Your task to perform on an android device: turn on notifications settings in the gmail app Image 0: 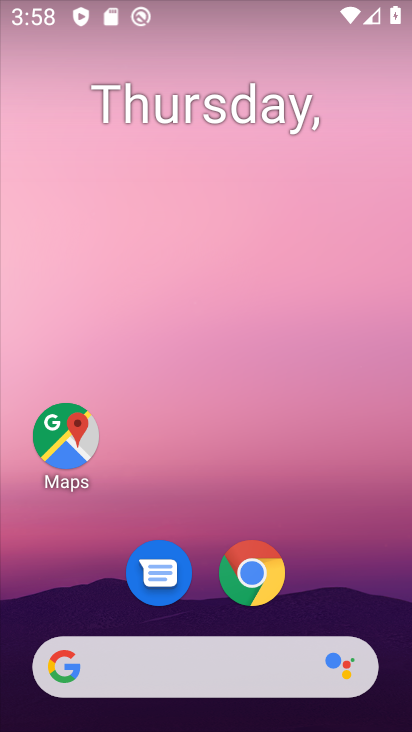
Step 0: drag from (405, 638) to (288, 152)
Your task to perform on an android device: turn on notifications settings in the gmail app Image 1: 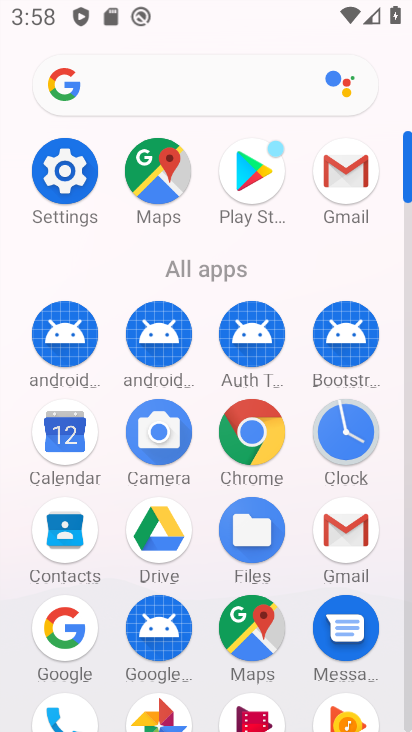
Step 1: click (406, 708)
Your task to perform on an android device: turn on notifications settings in the gmail app Image 2: 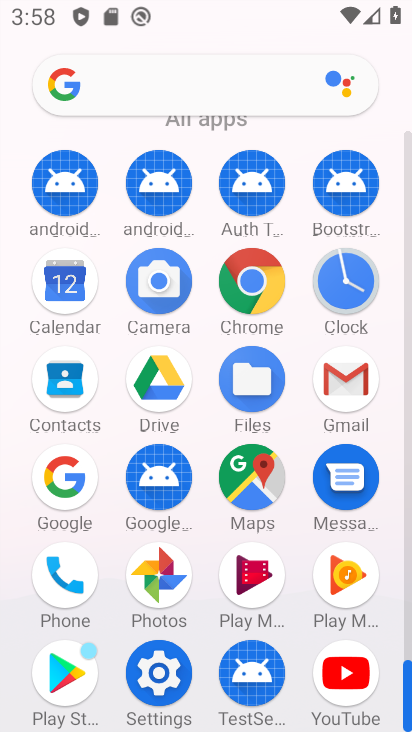
Step 2: click (344, 376)
Your task to perform on an android device: turn on notifications settings in the gmail app Image 3: 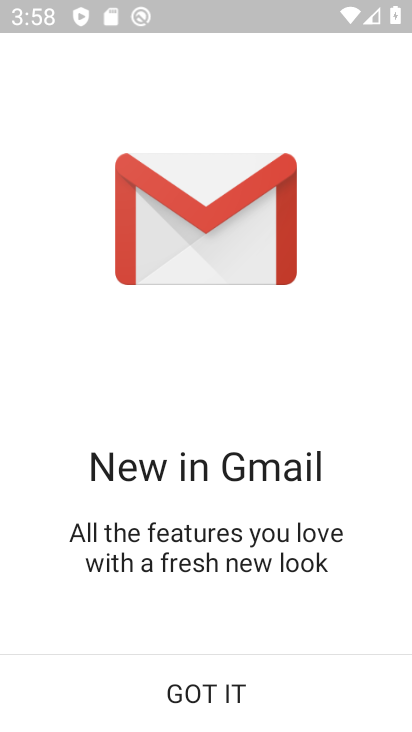
Step 3: click (199, 703)
Your task to perform on an android device: turn on notifications settings in the gmail app Image 4: 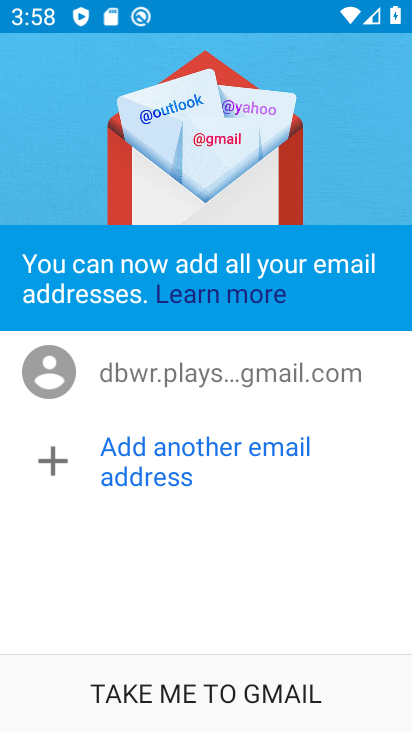
Step 4: click (199, 703)
Your task to perform on an android device: turn on notifications settings in the gmail app Image 5: 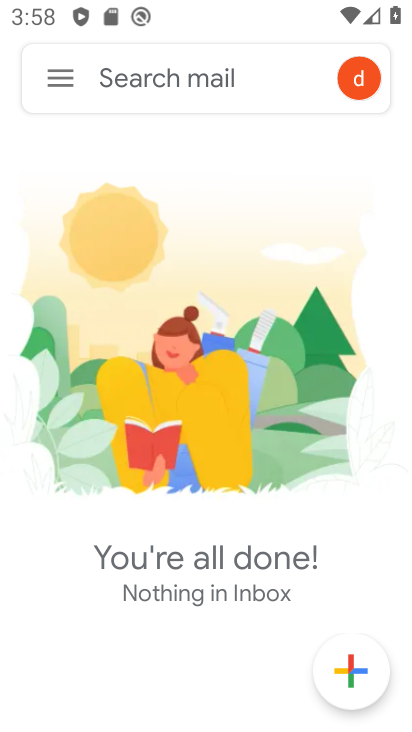
Step 5: click (62, 73)
Your task to perform on an android device: turn on notifications settings in the gmail app Image 6: 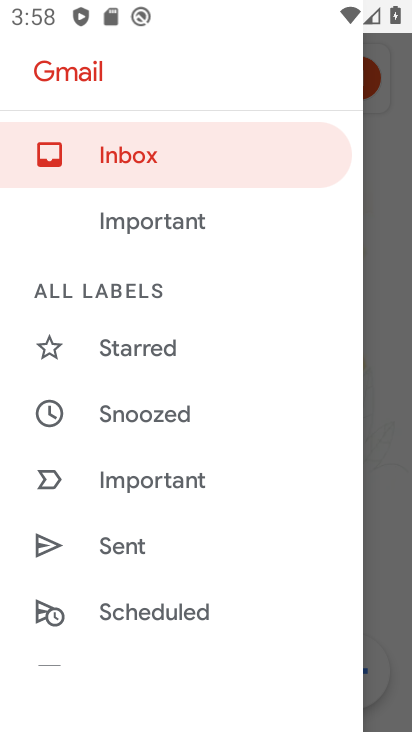
Step 6: drag from (249, 613) to (282, 40)
Your task to perform on an android device: turn on notifications settings in the gmail app Image 7: 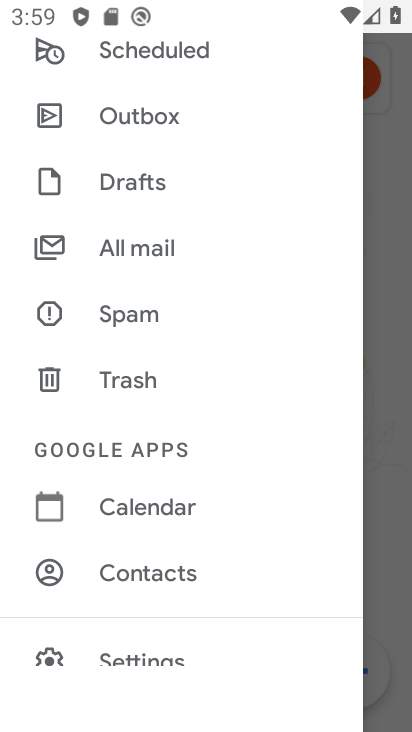
Step 7: drag from (238, 653) to (239, 217)
Your task to perform on an android device: turn on notifications settings in the gmail app Image 8: 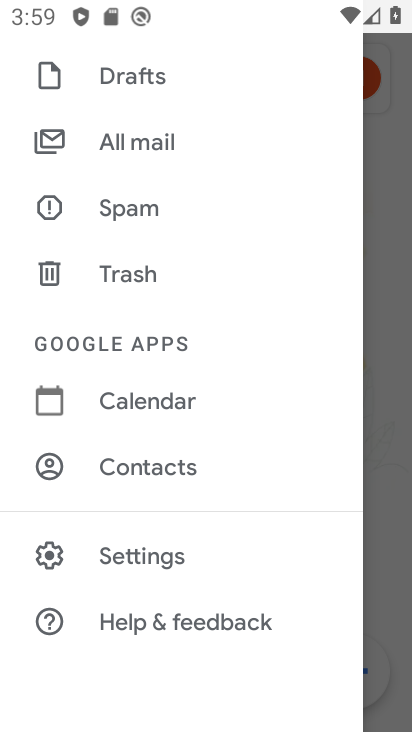
Step 8: click (128, 549)
Your task to perform on an android device: turn on notifications settings in the gmail app Image 9: 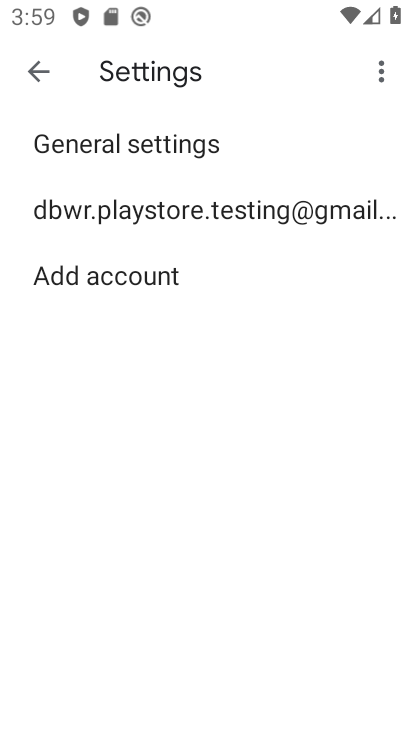
Step 9: click (175, 212)
Your task to perform on an android device: turn on notifications settings in the gmail app Image 10: 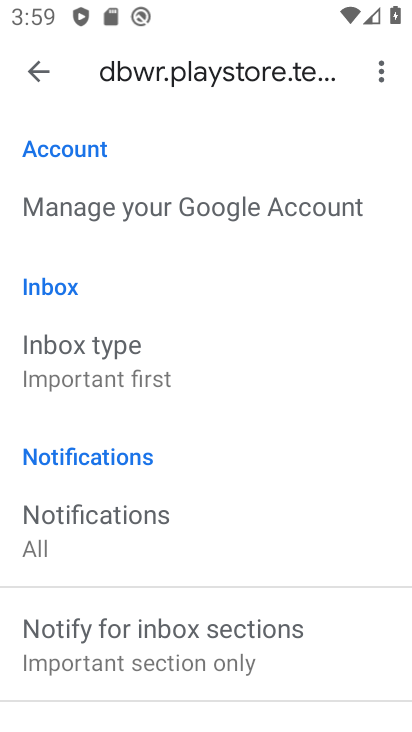
Step 10: drag from (169, 614) to (263, 246)
Your task to perform on an android device: turn on notifications settings in the gmail app Image 11: 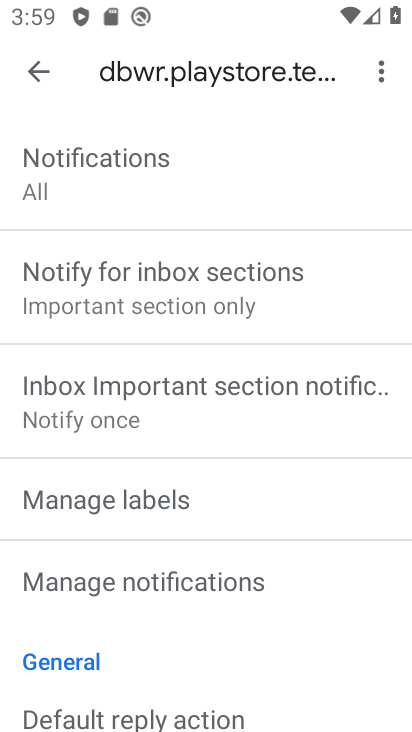
Step 11: click (141, 586)
Your task to perform on an android device: turn on notifications settings in the gmail app Image 12: 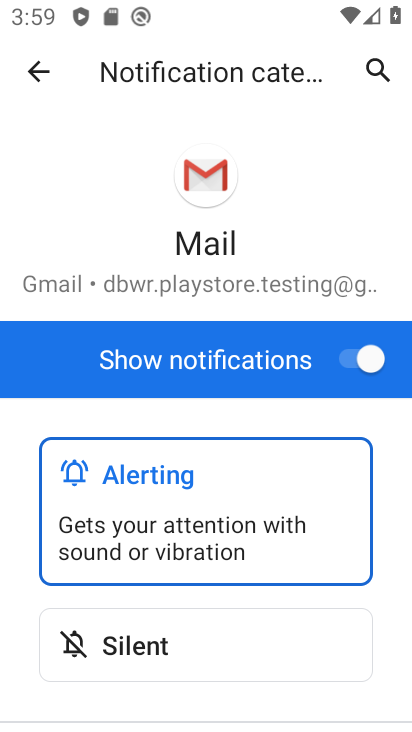
Step 12: task complete